Your task to perform on an android device: Show me recent news Image 0: 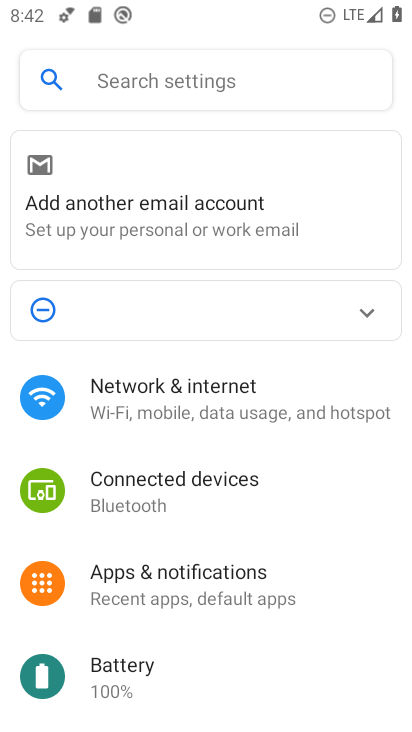
Step 0: press home button
Your task to perform on an android device: Show me recent news Image 1: 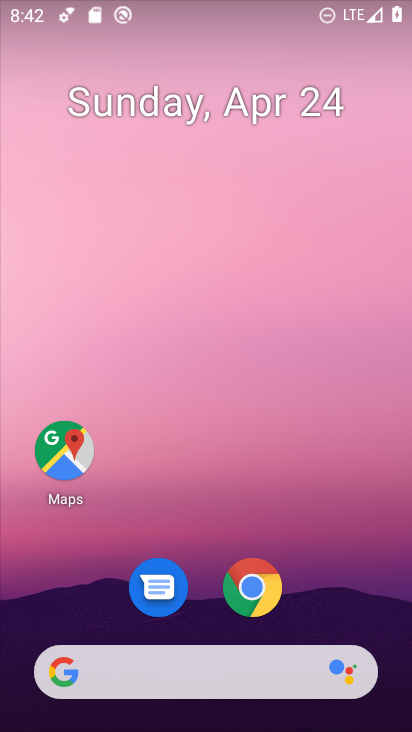
Step 1: drag from (346, 538) to (317, 203)
Your task to perform on an android device: Show me recent news Image 2: 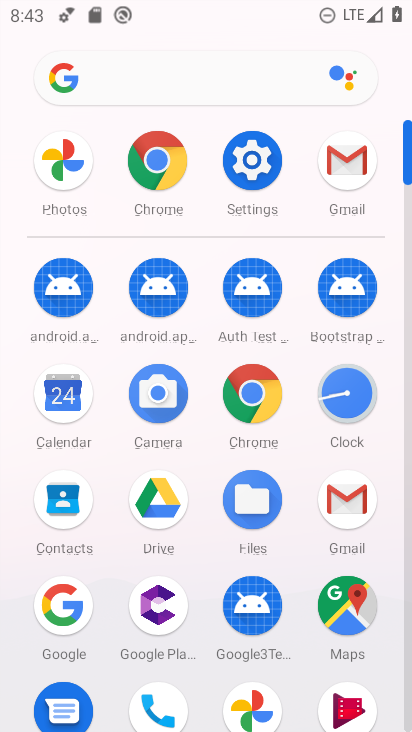
Step 2: click (146, 166)
Your task to perform on an android device: Show me recent news Image 3: 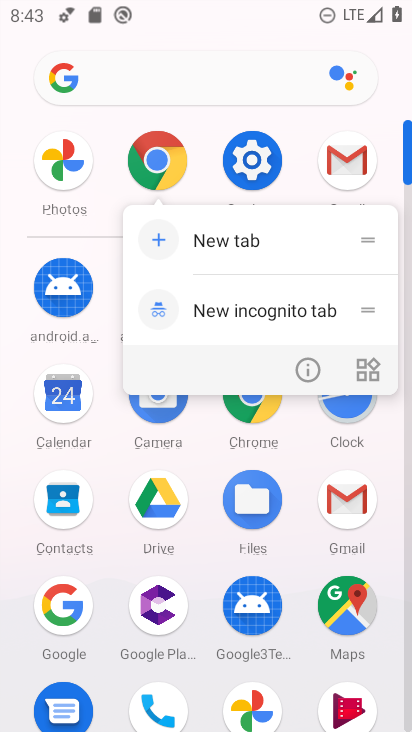
Step 3: click (153, 181)
Your task to perform on an android device: Show me recent news Image 4: 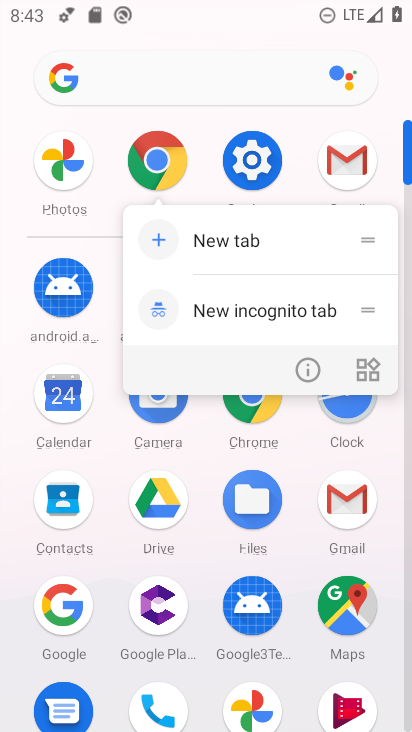
Step 4: click (244, 407)
Your task to perform on an android device: Show me recent news Image 5: 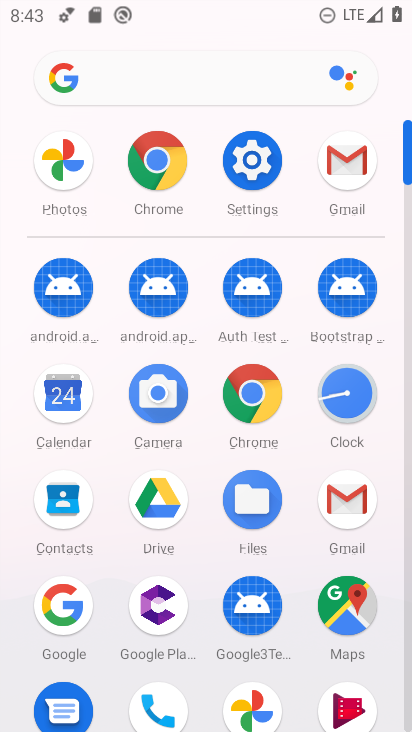
Step 5: click (254, 414)
Your task to perform on an android device: Show me recent news Image 6: 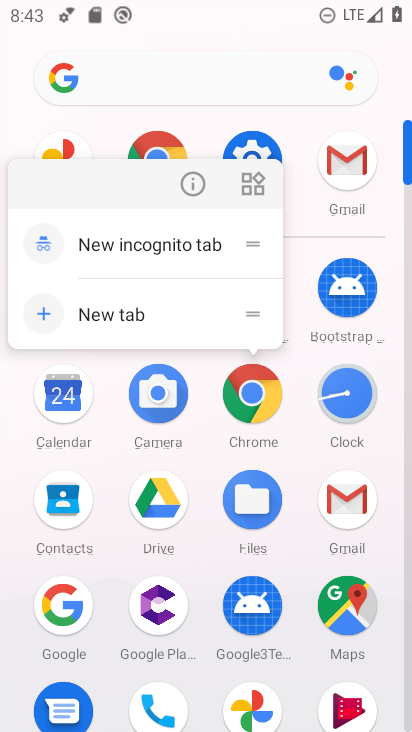
Step 6: click (256, 425)
Your task to perform on an android device: Show me recent news Image 7: 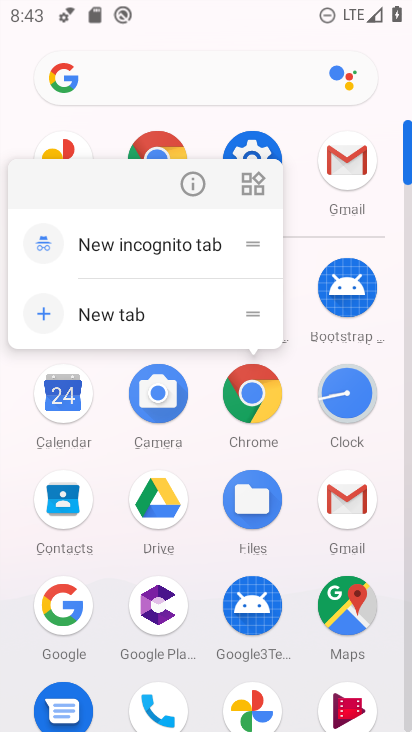
Step 7: click (255, 415)
Your task to perform on an android device: Show me recent news Image 8: 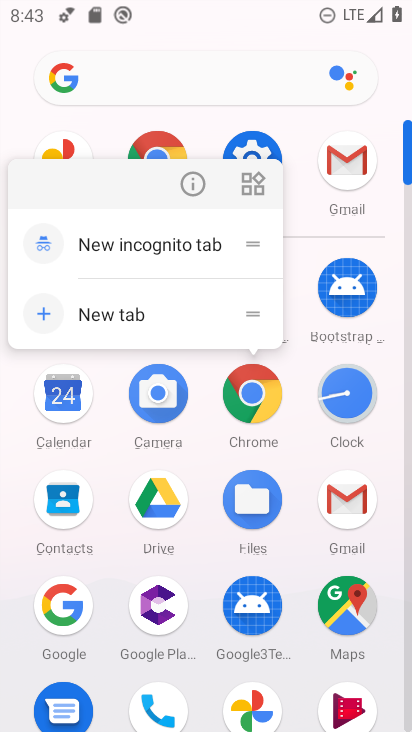
Step 8: click (242, 390)
Your task to perform on an android device: Show me recent news Image 9: 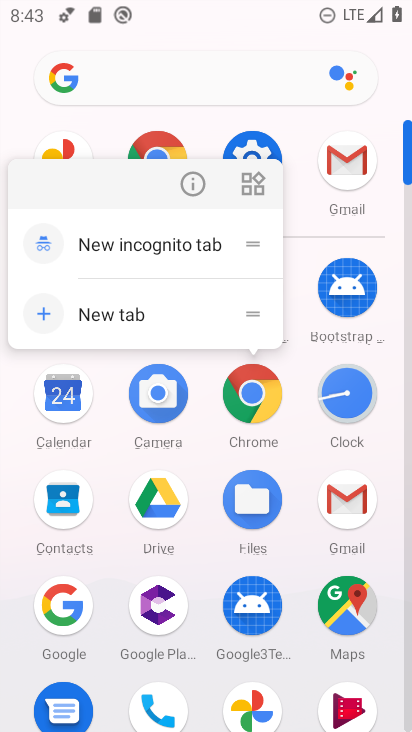
Step 9: click (260, 400)
Your task to perform on an android device: Show me recent news Image 10: 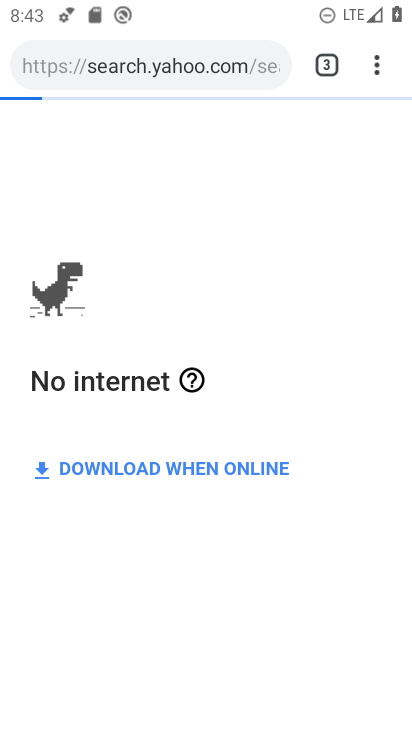
Step 10: click (179, 64)
Your task to perform on an android device: Show me recent news Image 11: 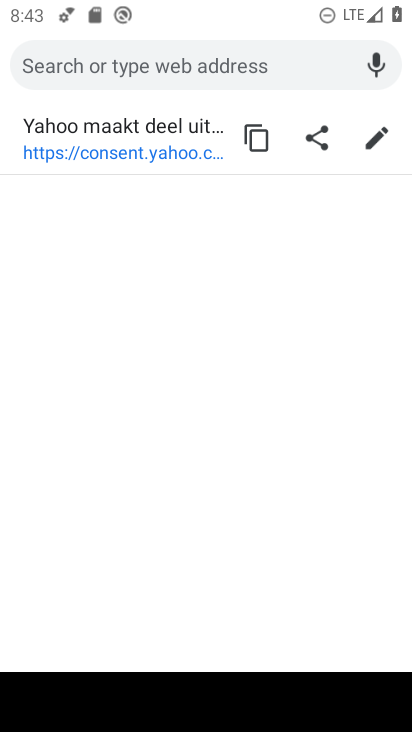
Step 11: type "recent news"
Your task to perform on an android device: Show me recent news Image 12: 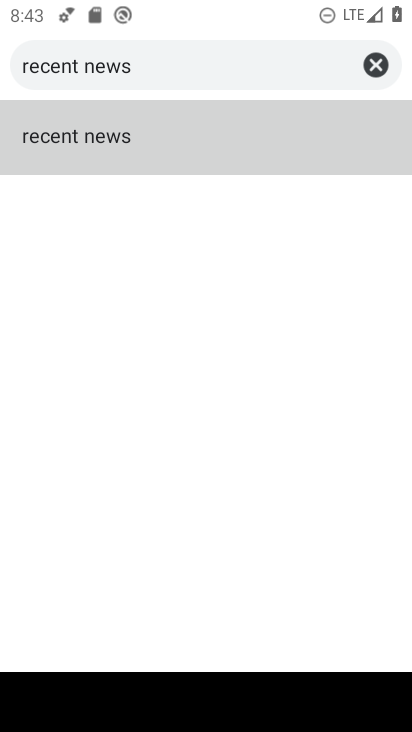
Step 12: click (81, 114)
Your task to perform on an android device: Show me recent news Image 13: 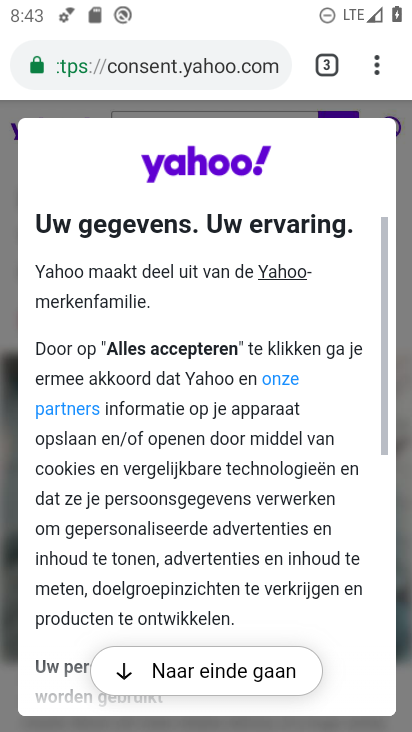
Step 13: click (158, 675)
Your task to perform on an android device: Show me recent news Image 14: 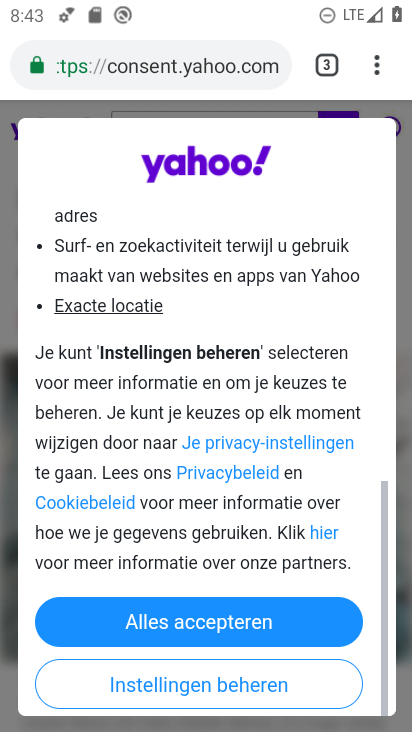
Step 14: click (208, 622)
Your task to perform on an android device: Show me recent news Image 15: 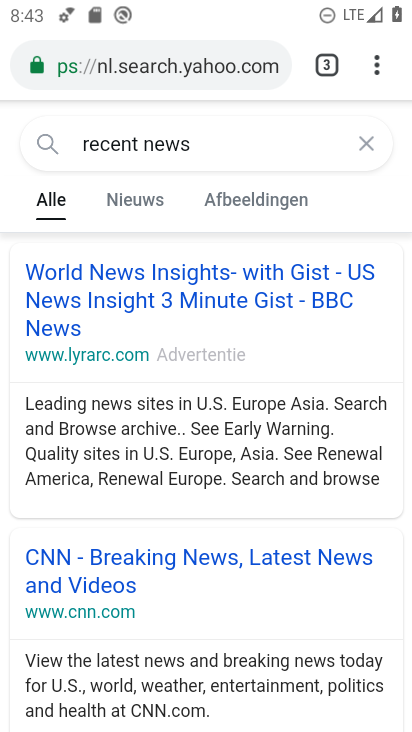
Step 15: click (127, 289)
Your task to perform on an android device: Show me recent news Image 16: 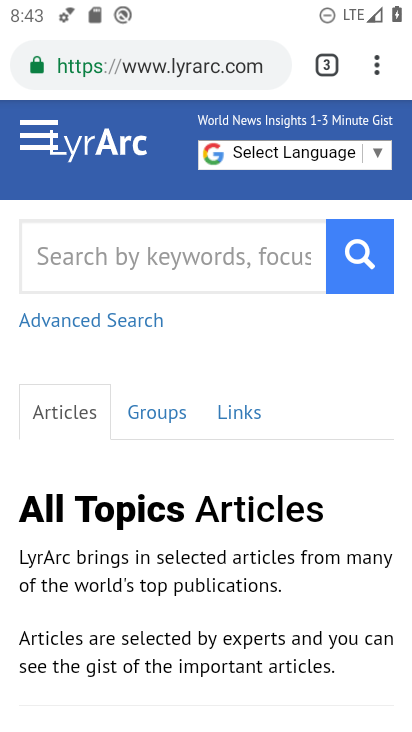
Step 16: task complete